Your task to perform on an android device: Open Google Maps Image 0: 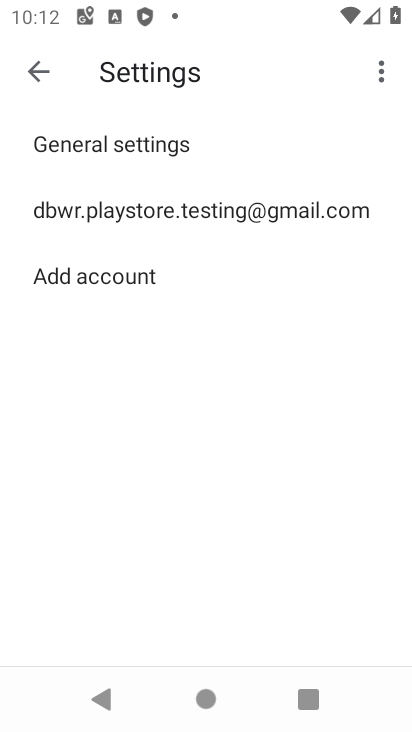
Step 0: click (42, 64)
Your task to perform on an android device: Open Google Maps Image 1: 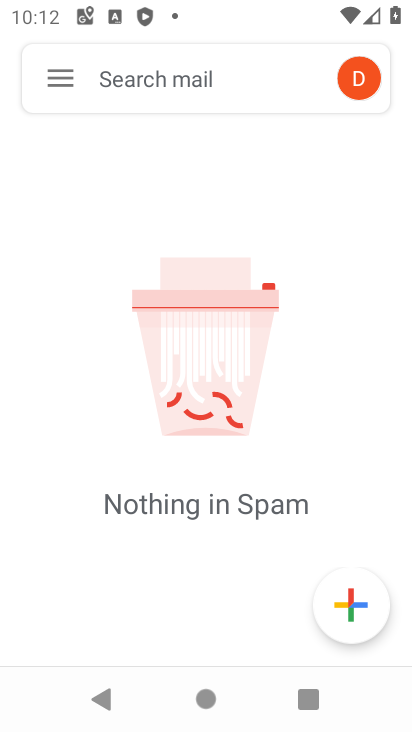
Step 1: press home button
Your task to perform on an android device: Open Google Maps Image 2: 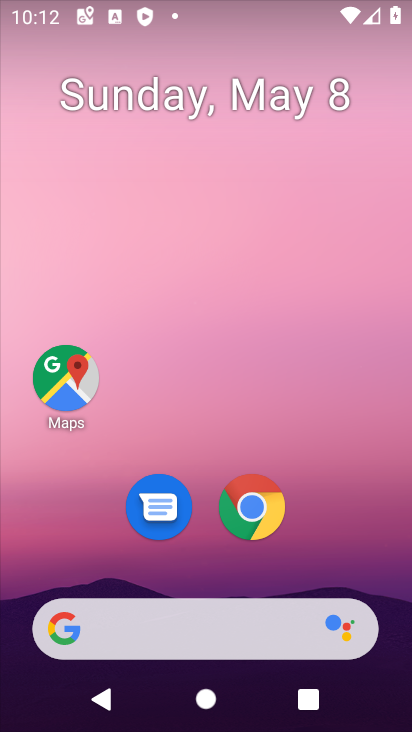
Step 2: click (74, 387)
Your task to perform on an android device: Open Google Maps Image 3: 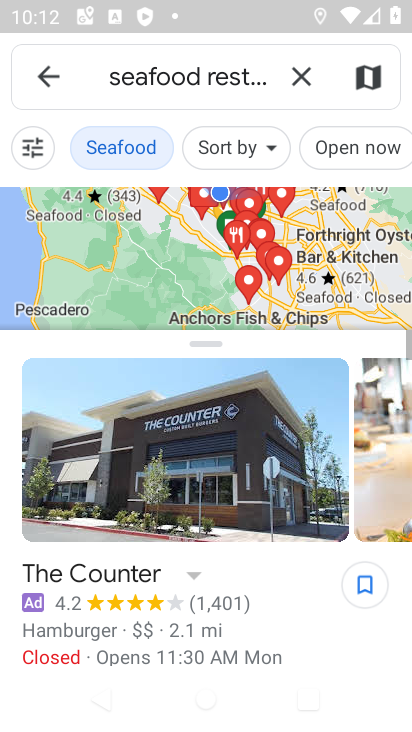
Step 3: click (299, 77)
Your task to perform on an android device: Open Google Maps Image 4: 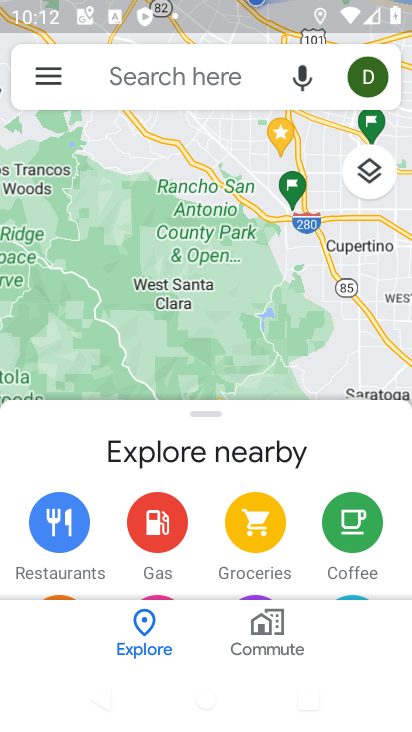
Step 4: task complete